Your task to perform on an android device: turn pop-ups on in chrome Image 0: 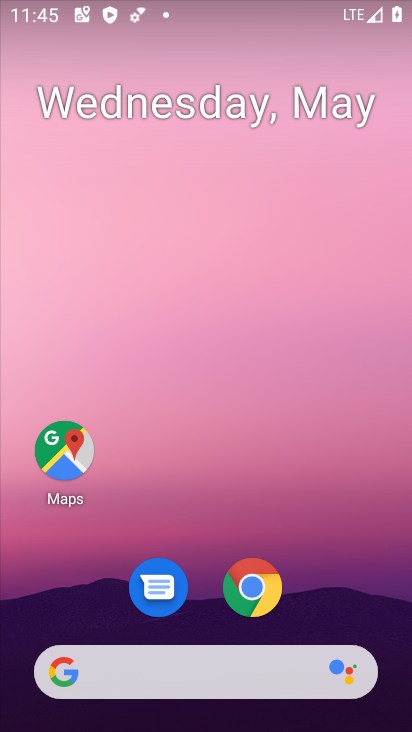
Step 0: click (264, 590)
Your task to perform on an android device: turn pop-ups on in chrome Image 1: 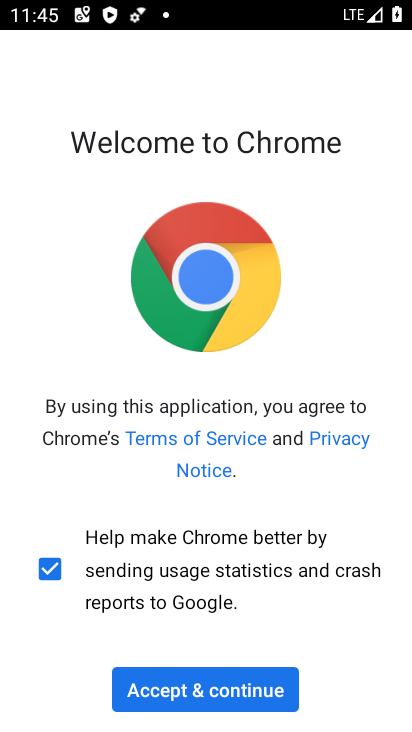
Step 1: click (267, 684)
Your task to perform on an android device: turn pop-ups on in chrome Image 2: 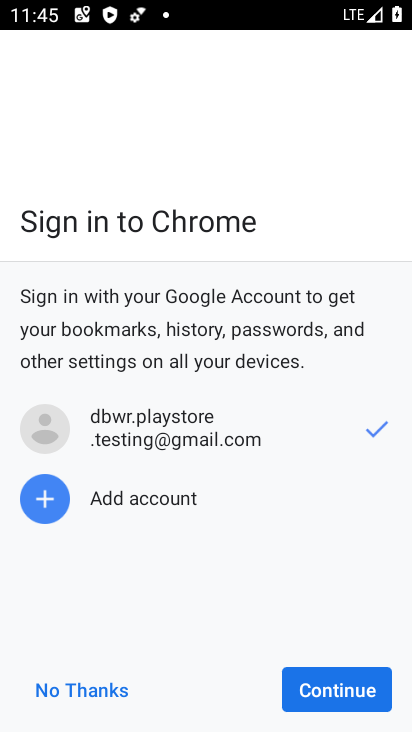
Step 2: click (340, 703)
Your task to perform on an android device: turn pop-ups on in chrome Image 3: 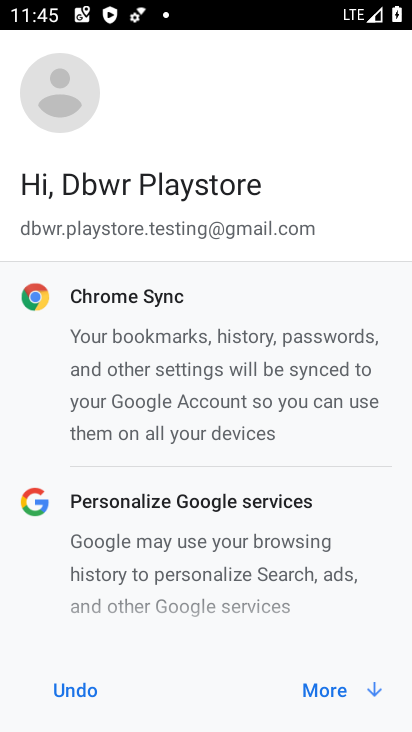
Step 3: click (344, 693)
Your task to perform on an android device: turn pop-ups on in chrome Image 4: 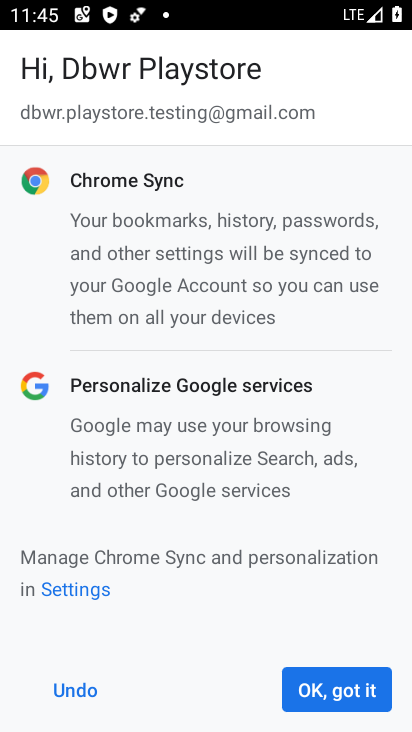
Step 4: click (344, 693)
Your task to perform on an android device: turn pop-ups on in chrome Image 5: 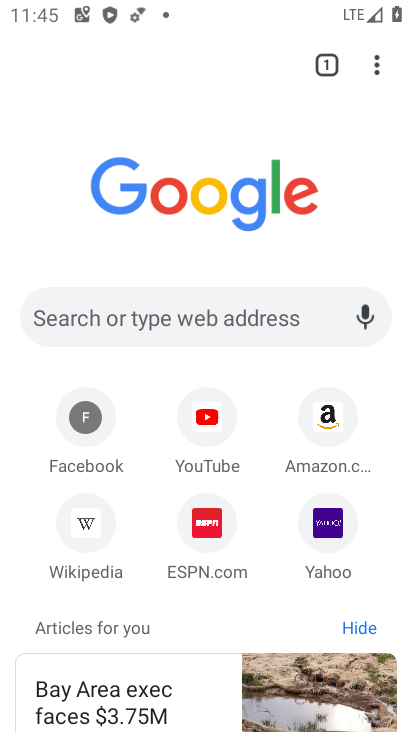
Step 5: click (382, 71)
Your task to perform on an android device: turn pop-ups on in chrome Image 6: 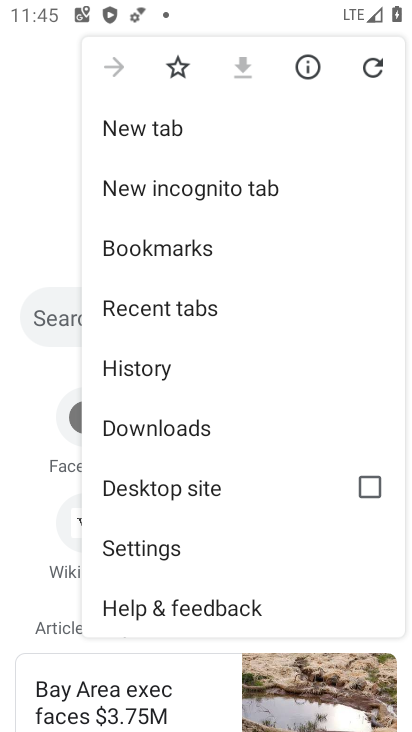
Step 6: click (204, 544)
Your task to perform on an android device: turn pop-ups on in chrome Image 7: 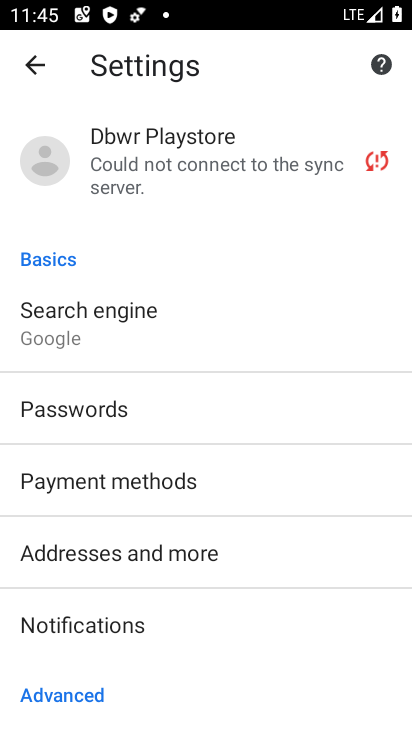
Step 7: drag from (164, 620) to (159, 151)
Your task to perform on an android device: turn pop-ups on in chrome Image 8: 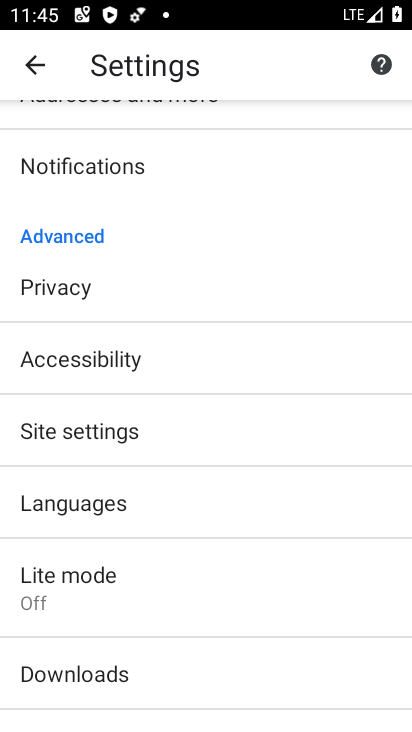
Step 8: click (125, 412)
Your task to perform on an android device: turn pop-ups on in chrome Image 9: 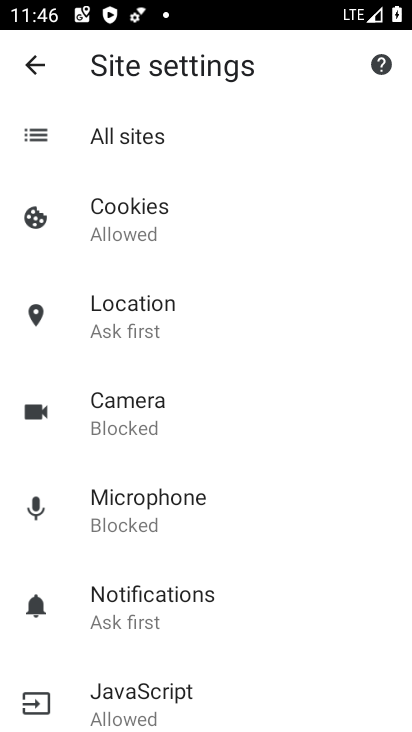
Step 9: drag from (196, 563) to (151, 311)
Your task to perform on an android device: turn pop-ups on in chrome Image 10: 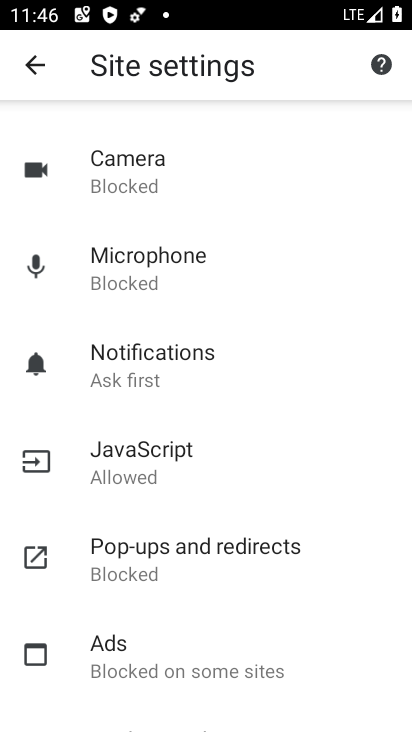
Step 10: click (183, 557)
Your task to perform on an android device: turn pop-ups on in chrome Image 11: 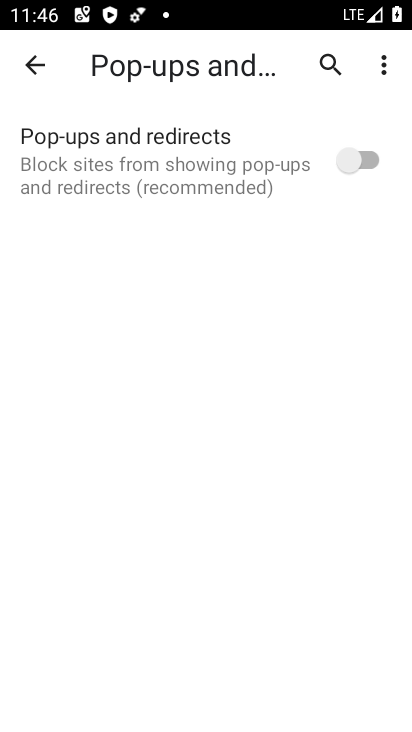
Step 11: click (368, 156)
Your task to perform on an android device: turn pop-ups on in chrome Image 12: 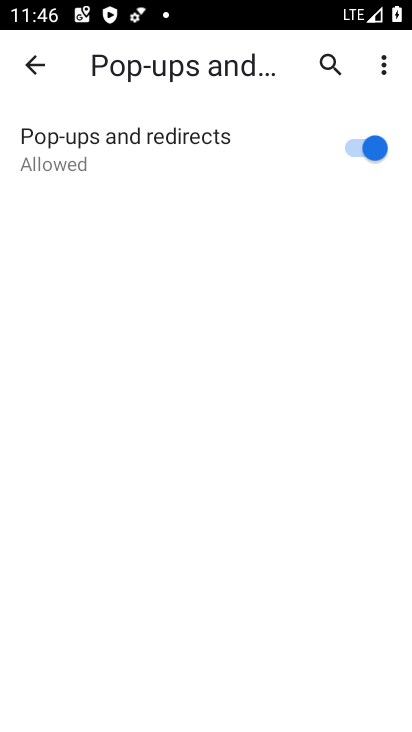
Step 12: task complete